Your task to perform on an android device: check android version Image 0: 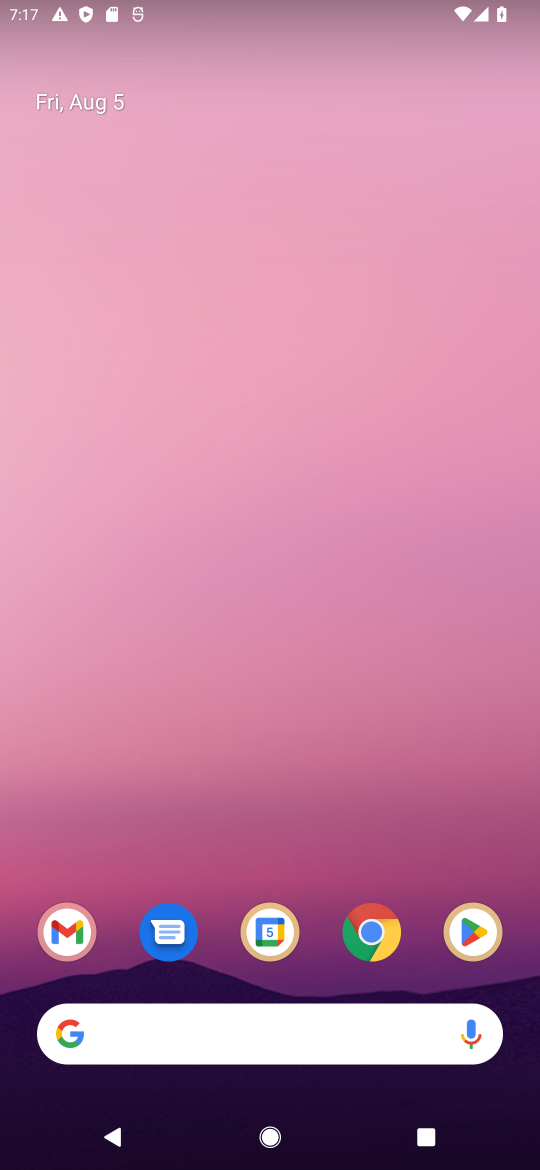
Step 0: drag from (261, 1031) to (268, 46)
Your task to perform on an android device: check android version Image 1: 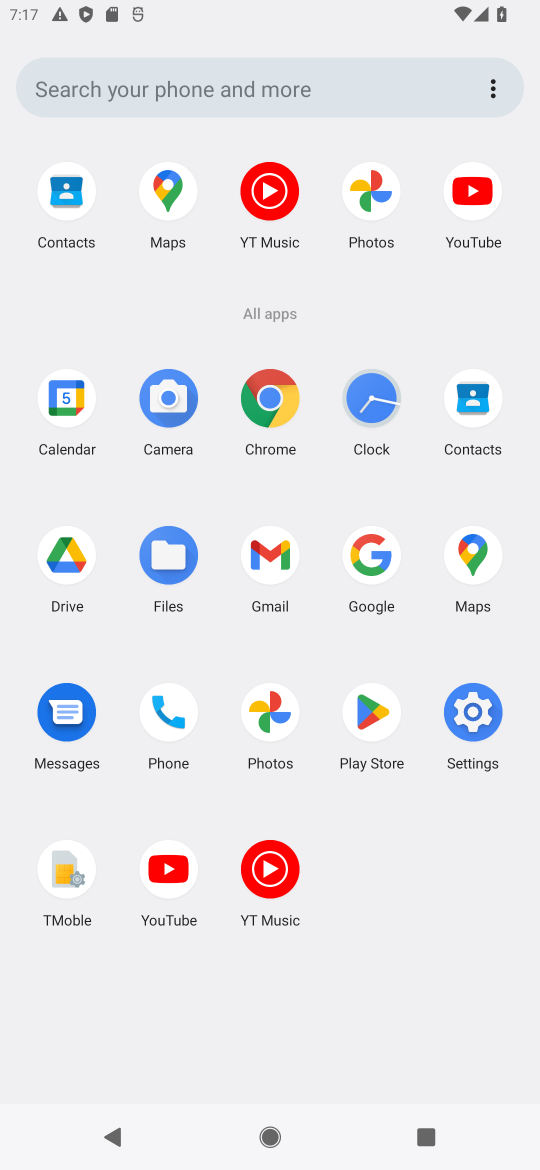
Step 1: click (473, 712)
Your task to perform on an android device: check android version Image 2: 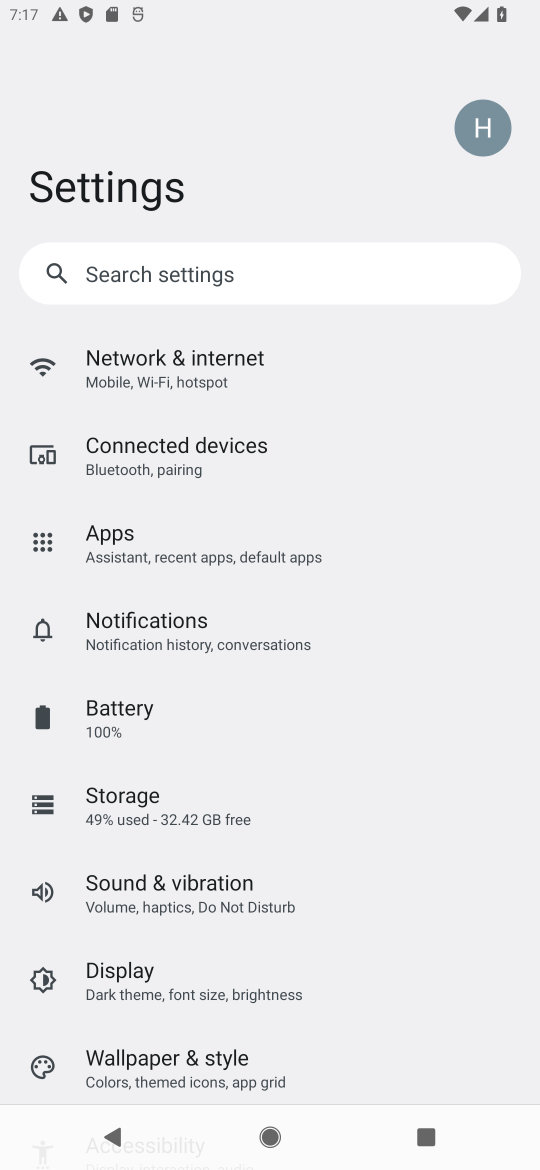
Step 2: drag from (204, 946) to (286, 782)
Your task to perform on an android device: check android version Image 3: 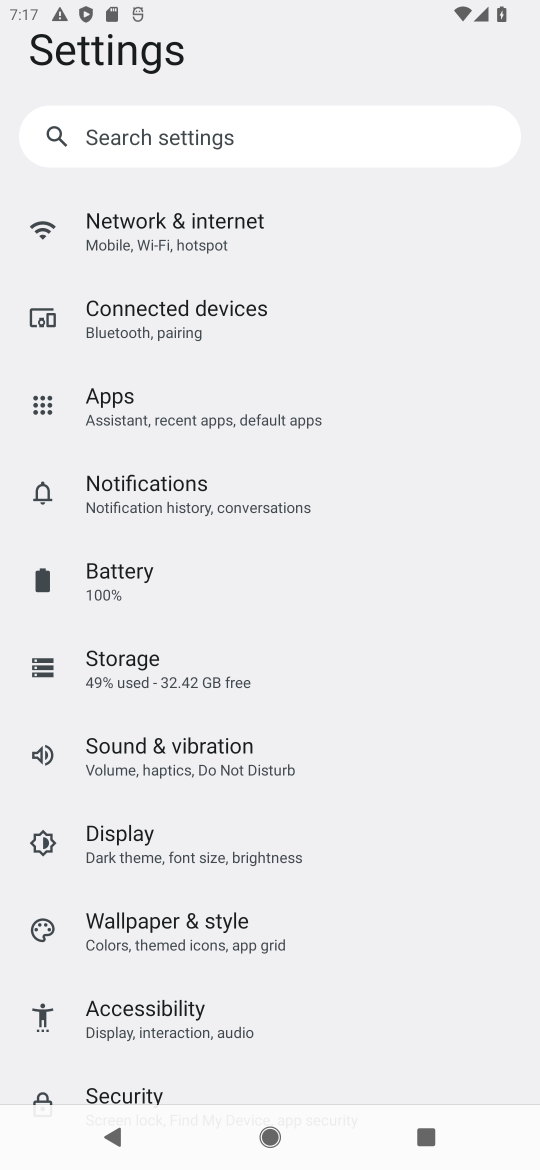
Step 3: drag from (200, 976) to (252, 790)
Your task to perform on an android device: check android version Image 4: 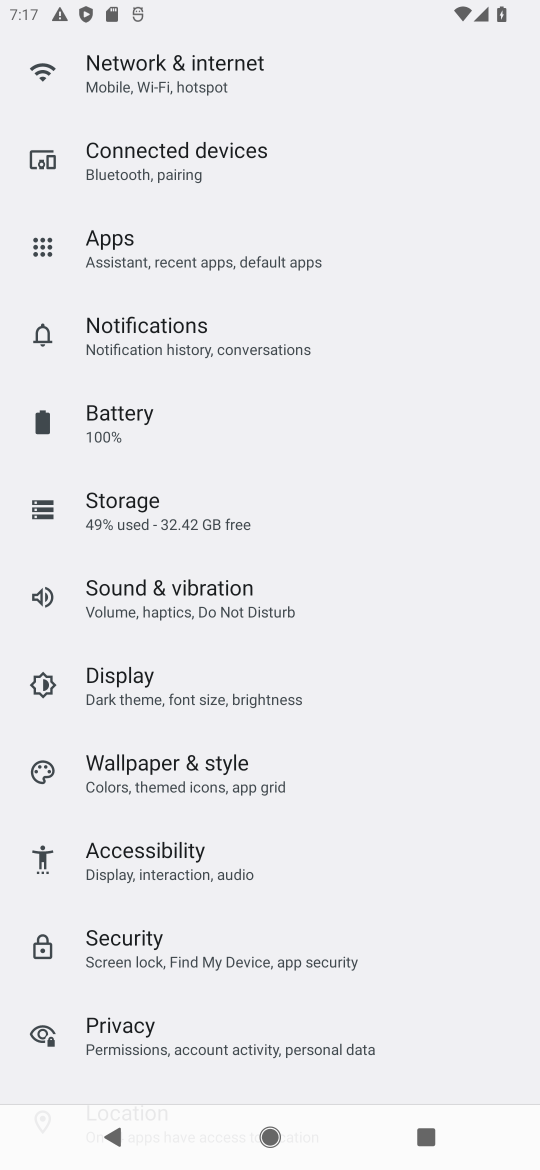
Step 4: drag from (209, 1019) to (287, 856)
Your task to perform on an android device: check android version Image 5: 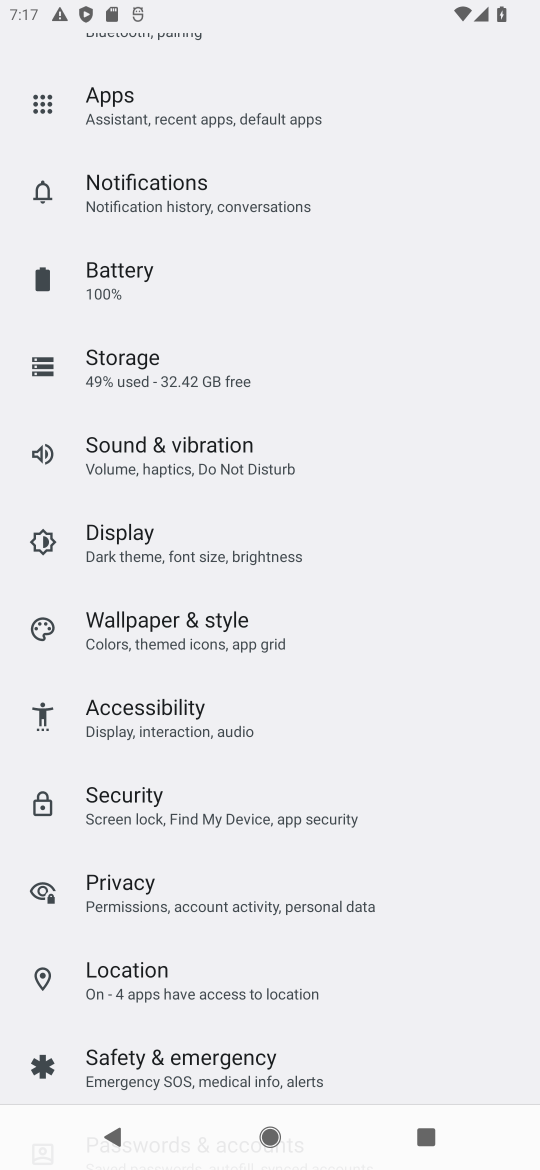
Step 5: drag from (256, 1018) to (334, 859)
Your task to perform on an android device: check android version Image 6: 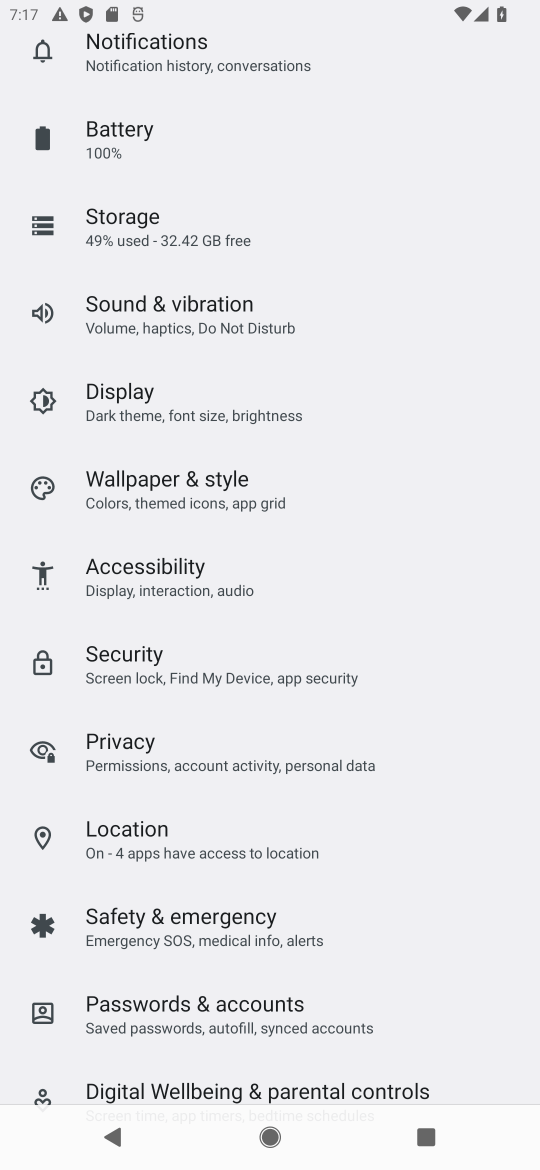
Step 6: drag from (220, 1063) to (313, 888)
Your task to perform on an android device: check android version Image 7: 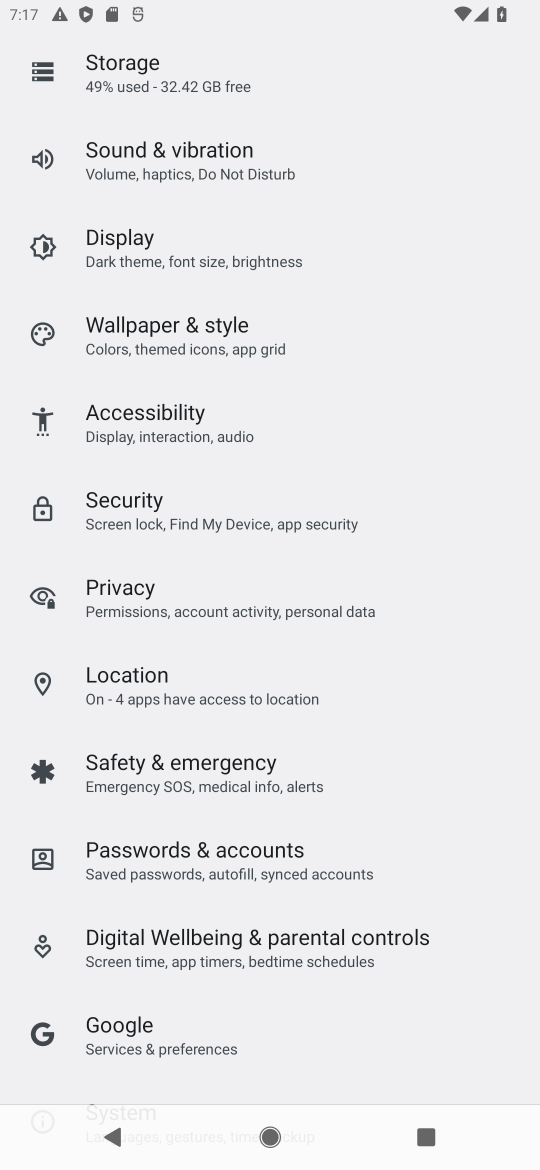
Step 7: drag from (215, 1007) to (283, 818)
Your task to perform on an android device: check android version Image 8: 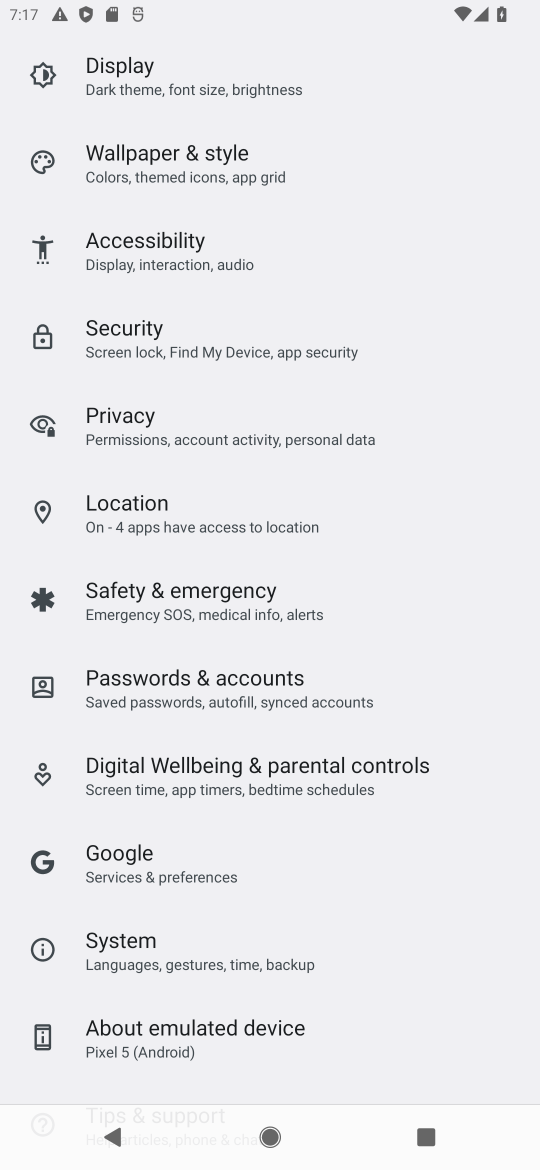
Step 8: drag from (206, 990) to (293, 820)
Your task to perform on an android device: check android version Image 9: 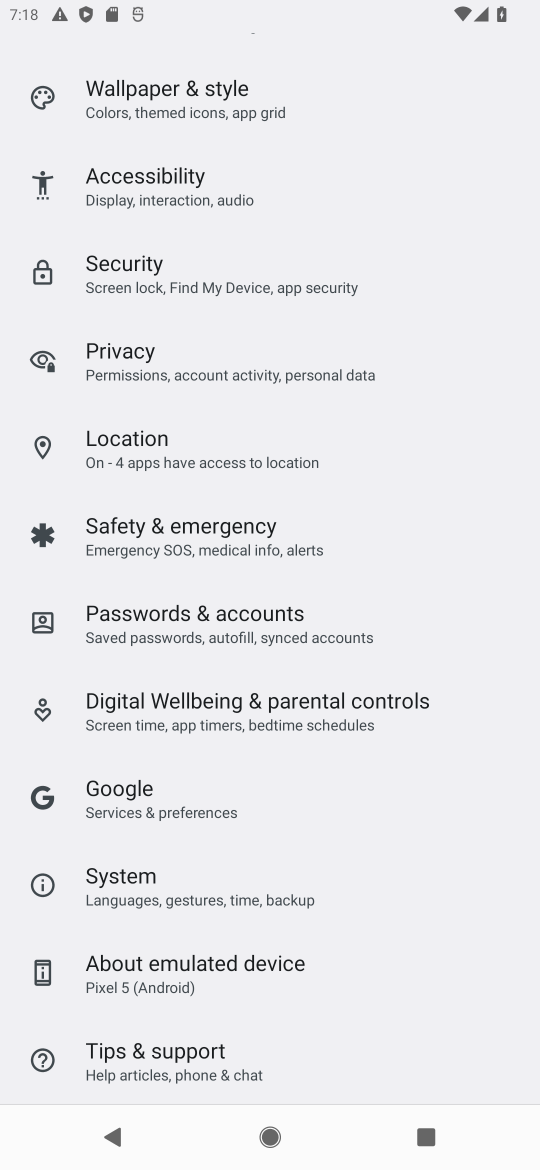
Step 9: click (204, 965)
Your task to perform on an android device: check android version Image 10: 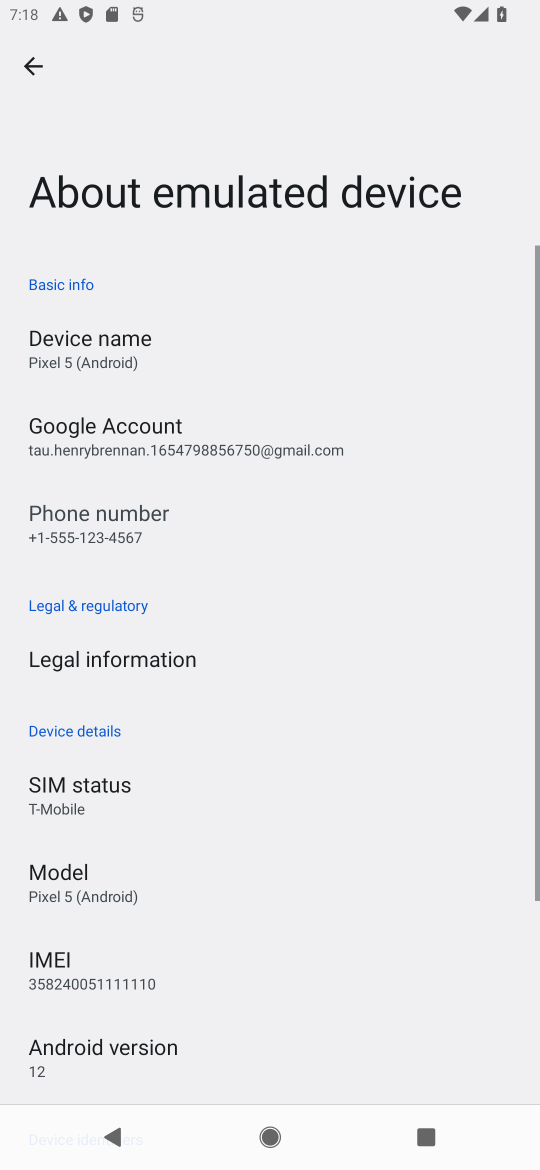
Step 10: drag from (217, 894) to (309, 680)
Your task to perform on an android device: check android version Image 11: 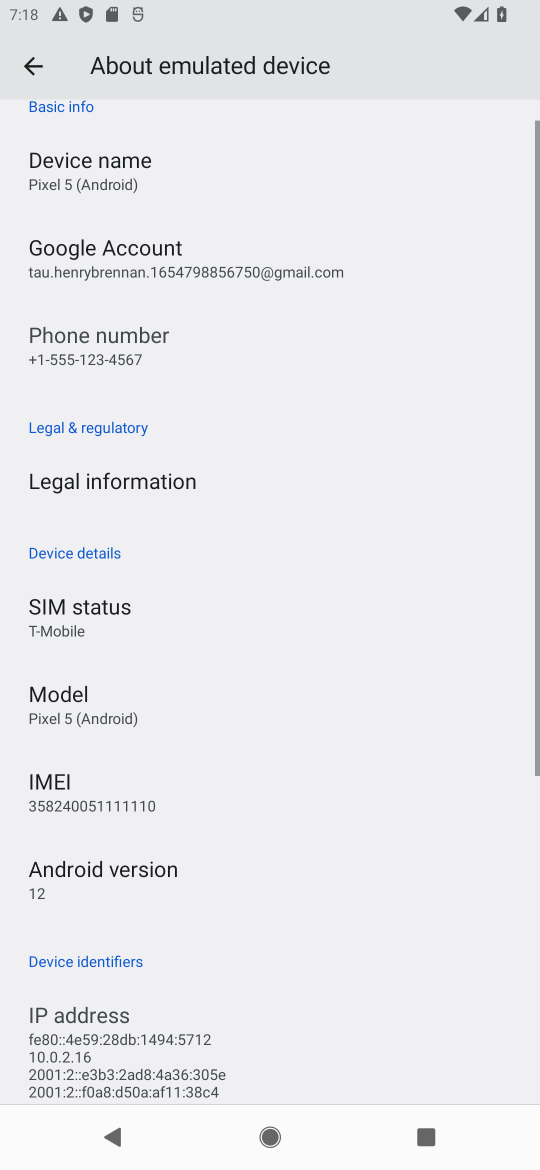
Step 11: click (150, 867)
Your task to perform on an android device: check android version Image 12: 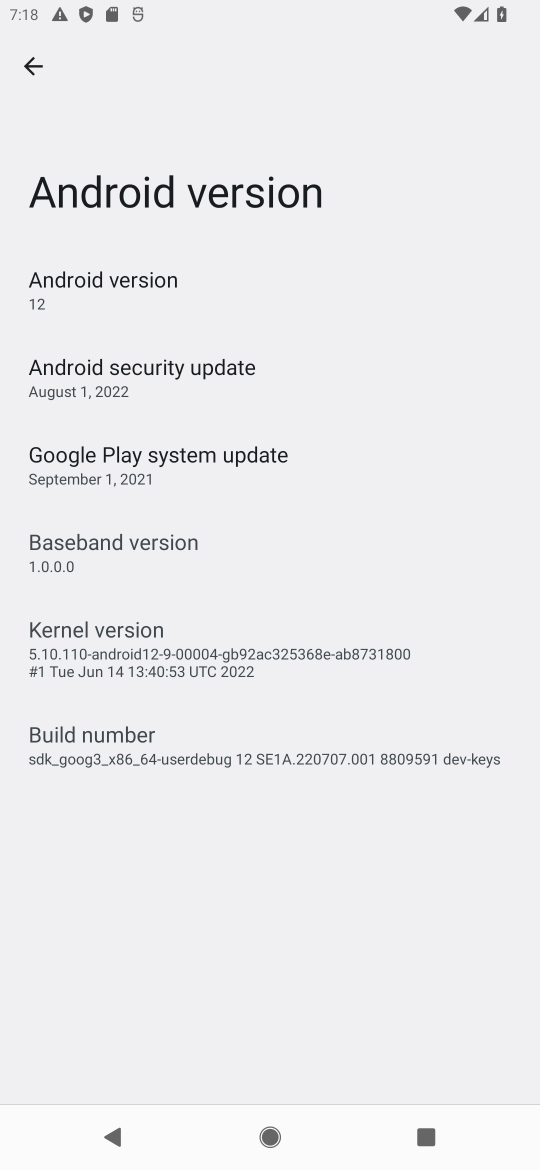
Step 12: task complete